Your task to perform on an android device: Go to Reddit.com Image 0: 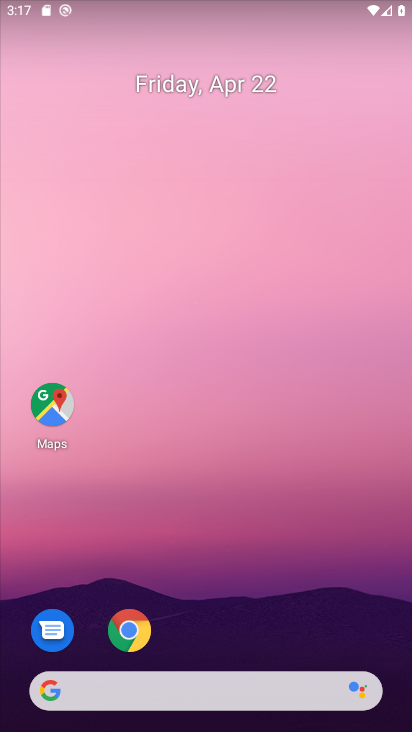
Step 0: click (138, 629)
Your task to perform on an android device: Go to Reddit.com Image 1: 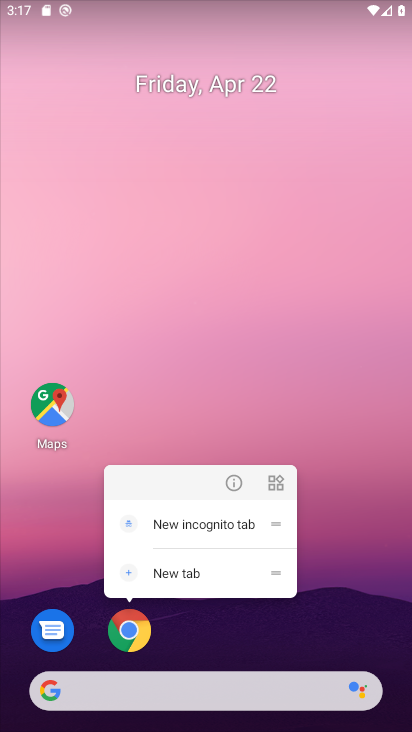
Step 1: click (140, 622)
Your task to perform on an android device: Go to Reddit.com Image 2: 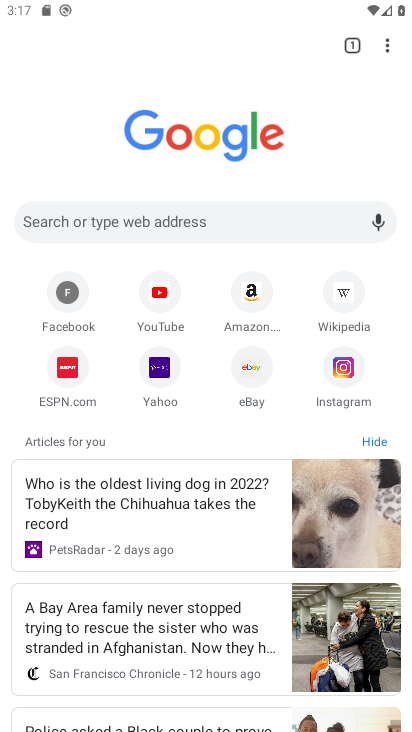
Step 2: click (183, 210)
Your task to perform on an android device: Go to Reddit.com Image 3: 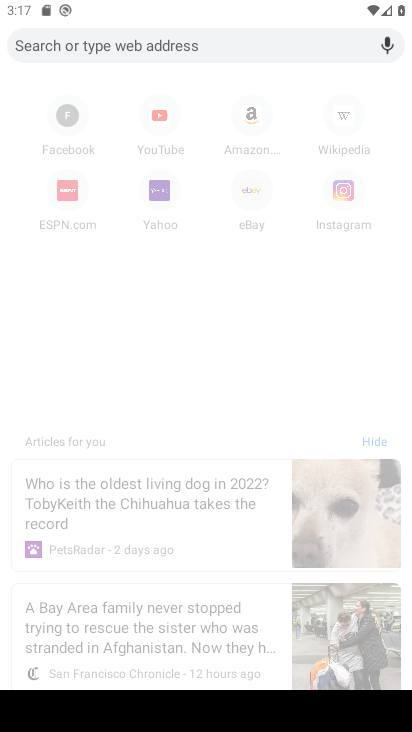
Step 3: type "Reddit.com"
Your task to perform on an android device: Go to Reddit.com Image 4: 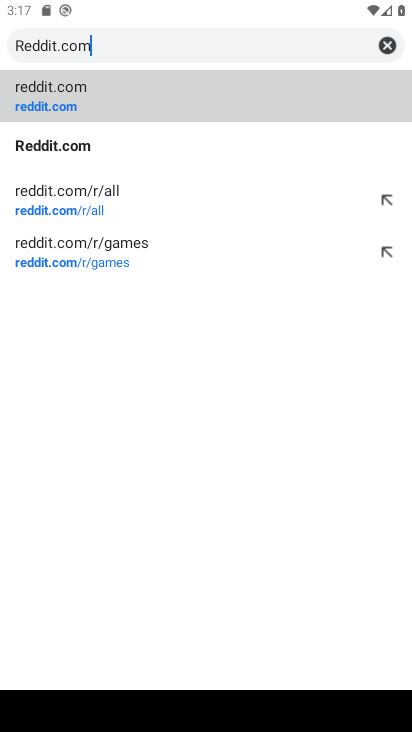
Step 4: click (63, 98)
Your task to perform on an android device: Go to Reddit.com Image 5: 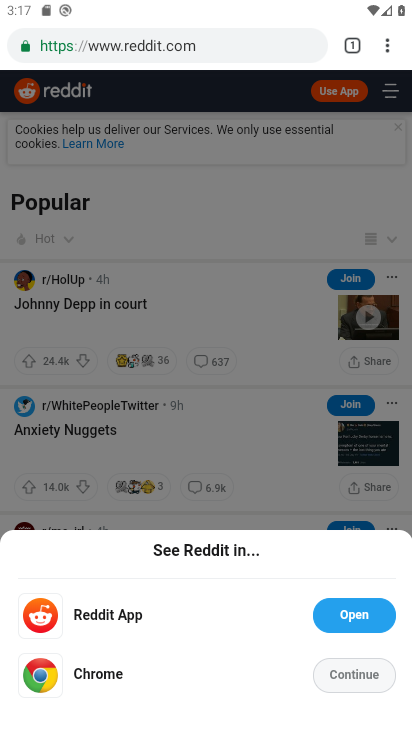
Step 5: task complete